Your task to perform on an android device: open app "Google Play Games" (install if not already installed) Image 0: 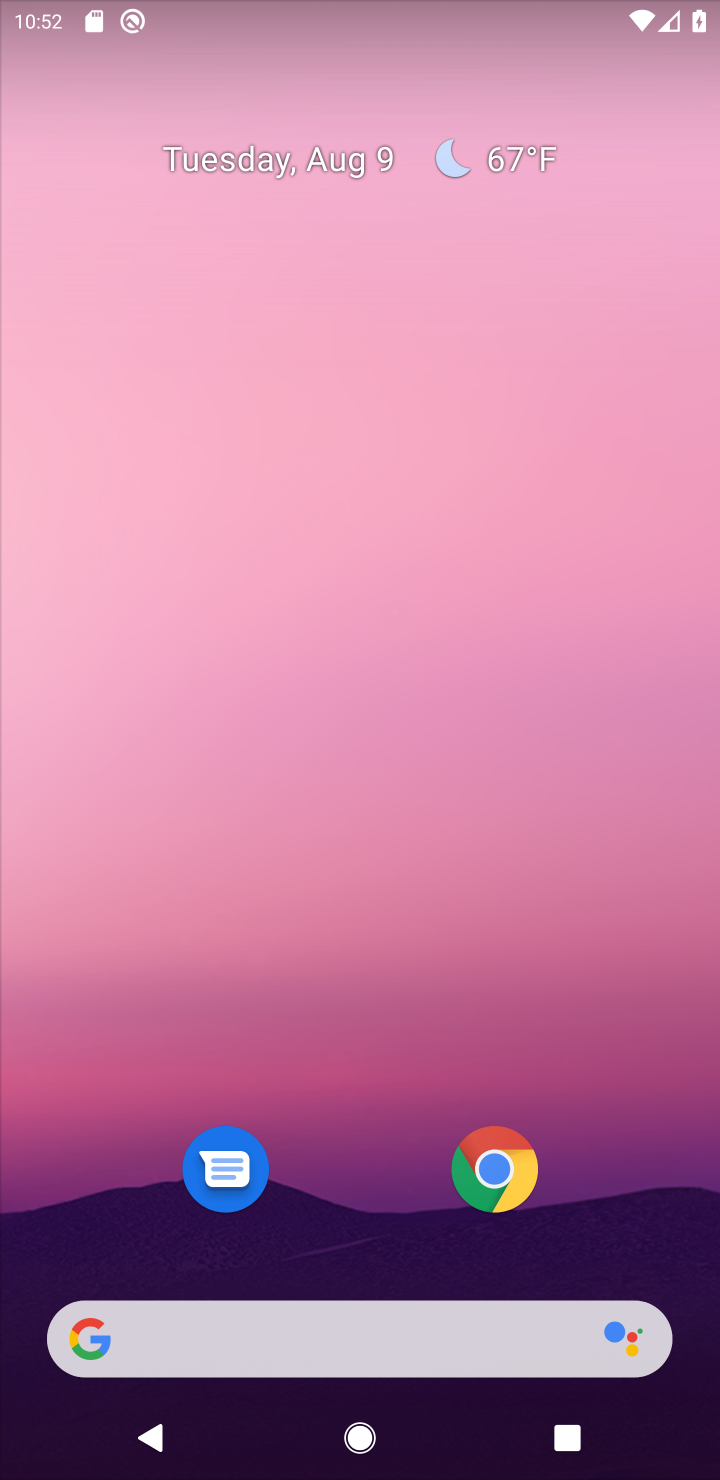
Step 0: drag from (603, 1210) to (630, 90)
Your task to perform on an android device: open app "Google Play Games" (install if not already installed) Image 1: 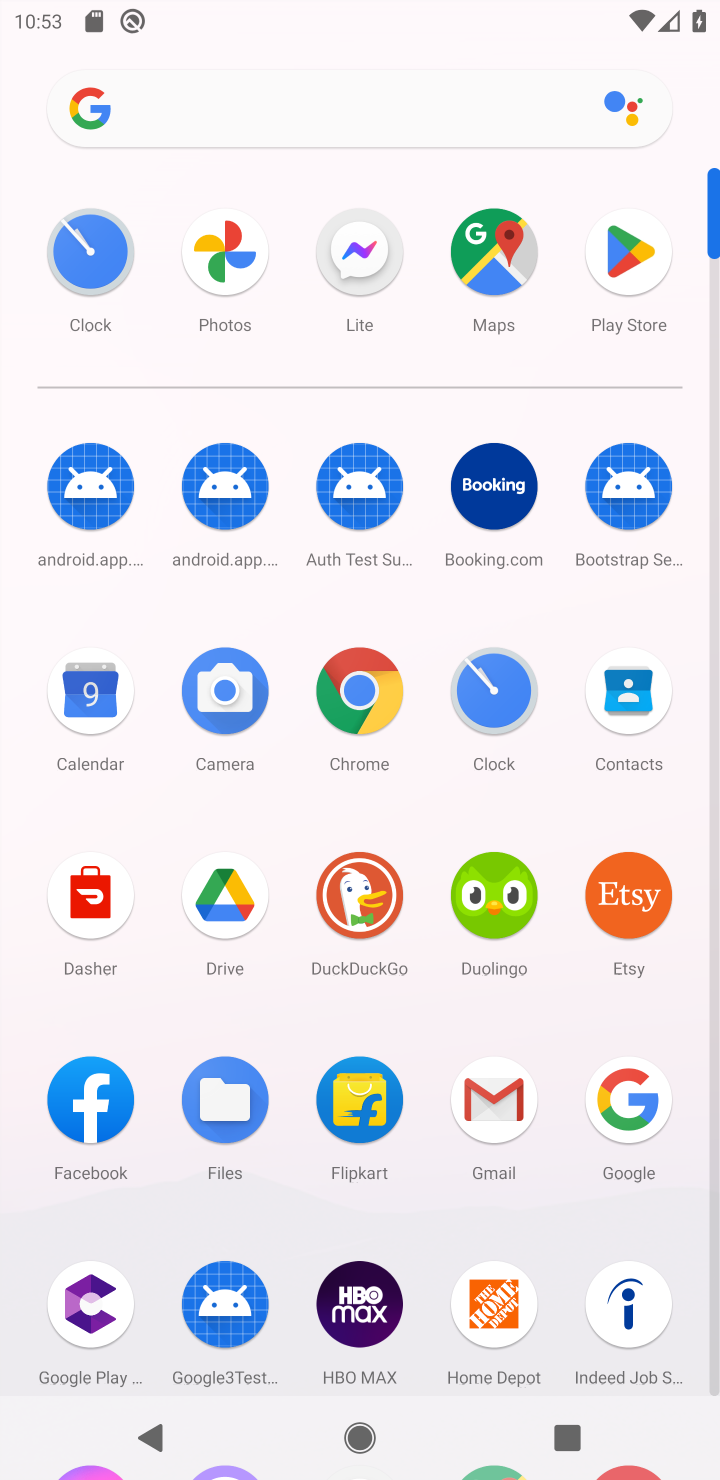
Step 1: click (629, 242)
Your task to perform on an android device: open app "Google Play Games" (install if not already installed) Image 2: 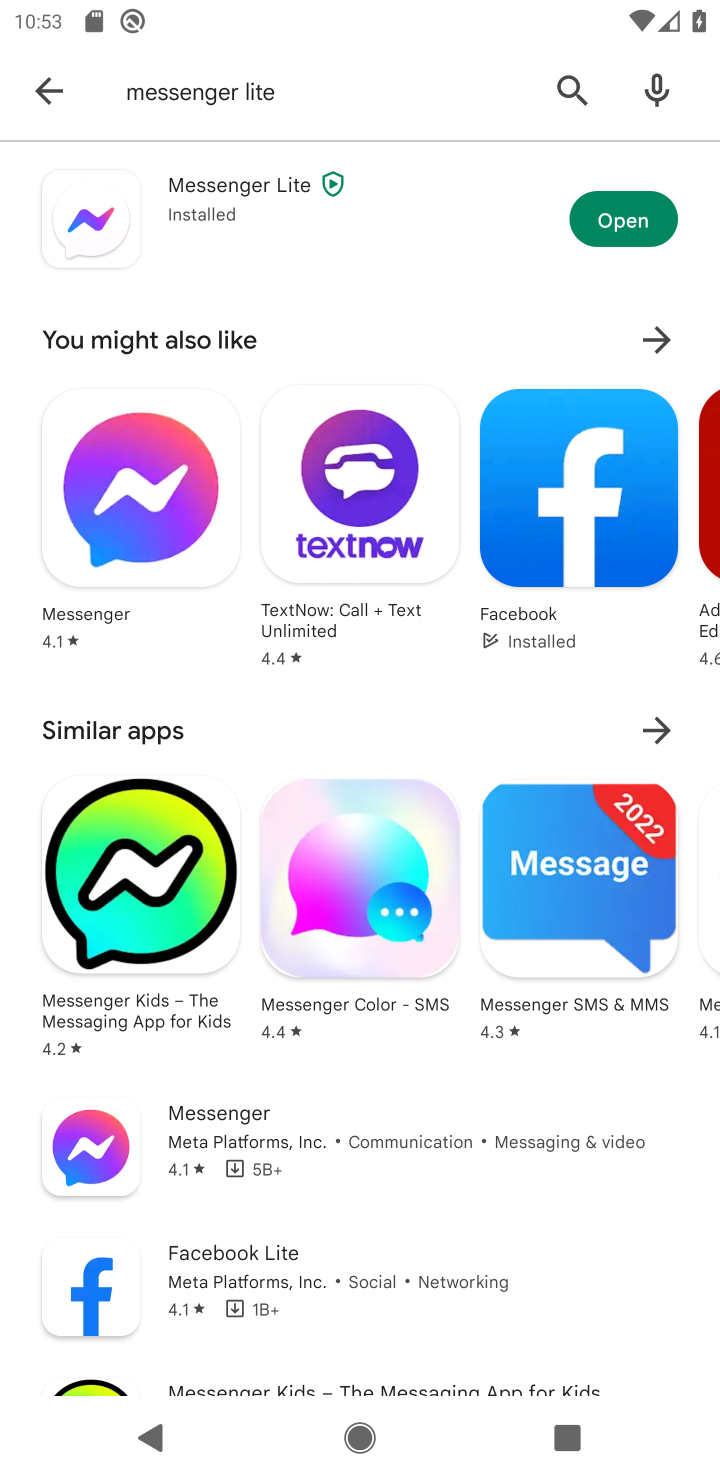
Step 2: click (563, 79)
Your task to perform on an android device: open app "Google Play Games" (install if not already installed) Image 3: 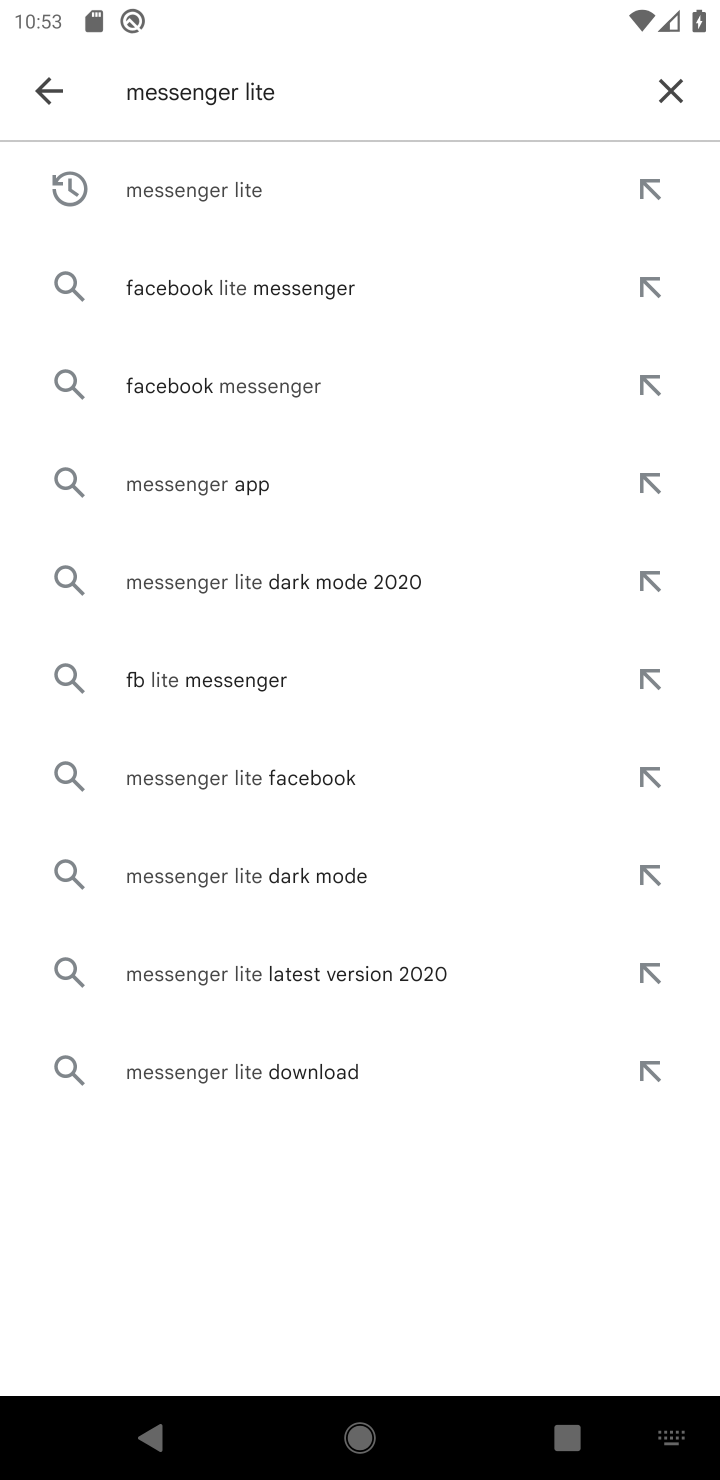
Step 3: click (673, 87)
Your task to perform on an android device: open app "Google Play Games" (install if not already installed) Image 4: 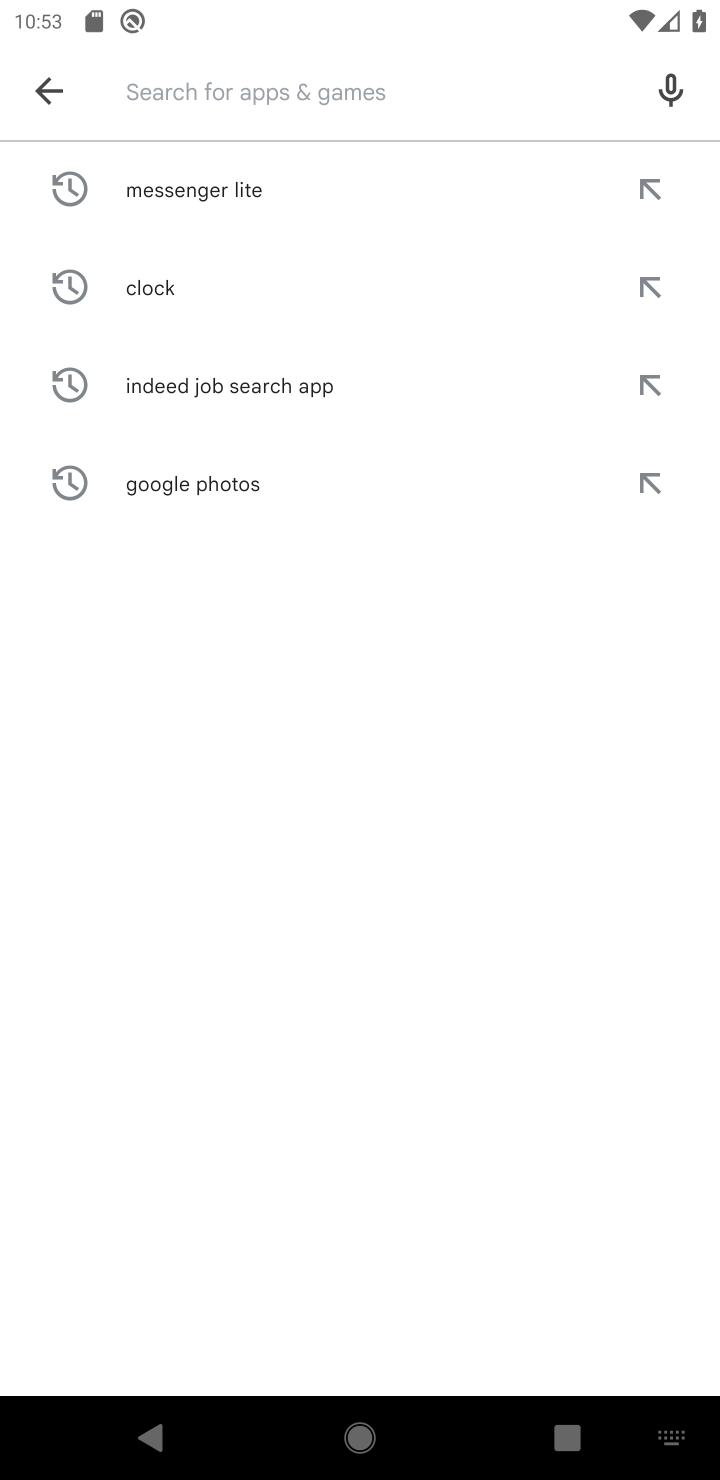
Step 4: press enter
Your task to perform on an android device: open app "Google Play Games" (install if not already installed) Image 5: 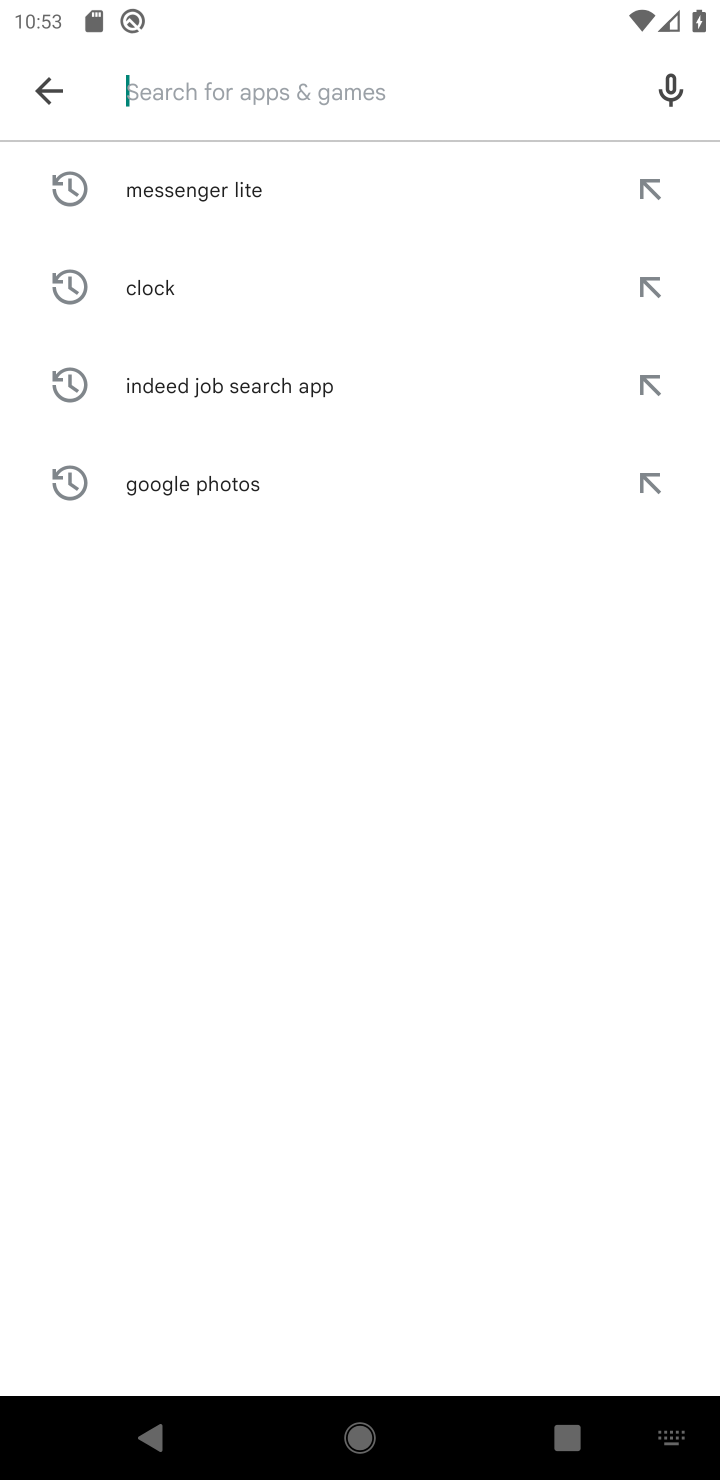
Step 5: type "google play games"
Your task to perform on an android device: open app "Google Play Games" (install if not already installed) Image 6: 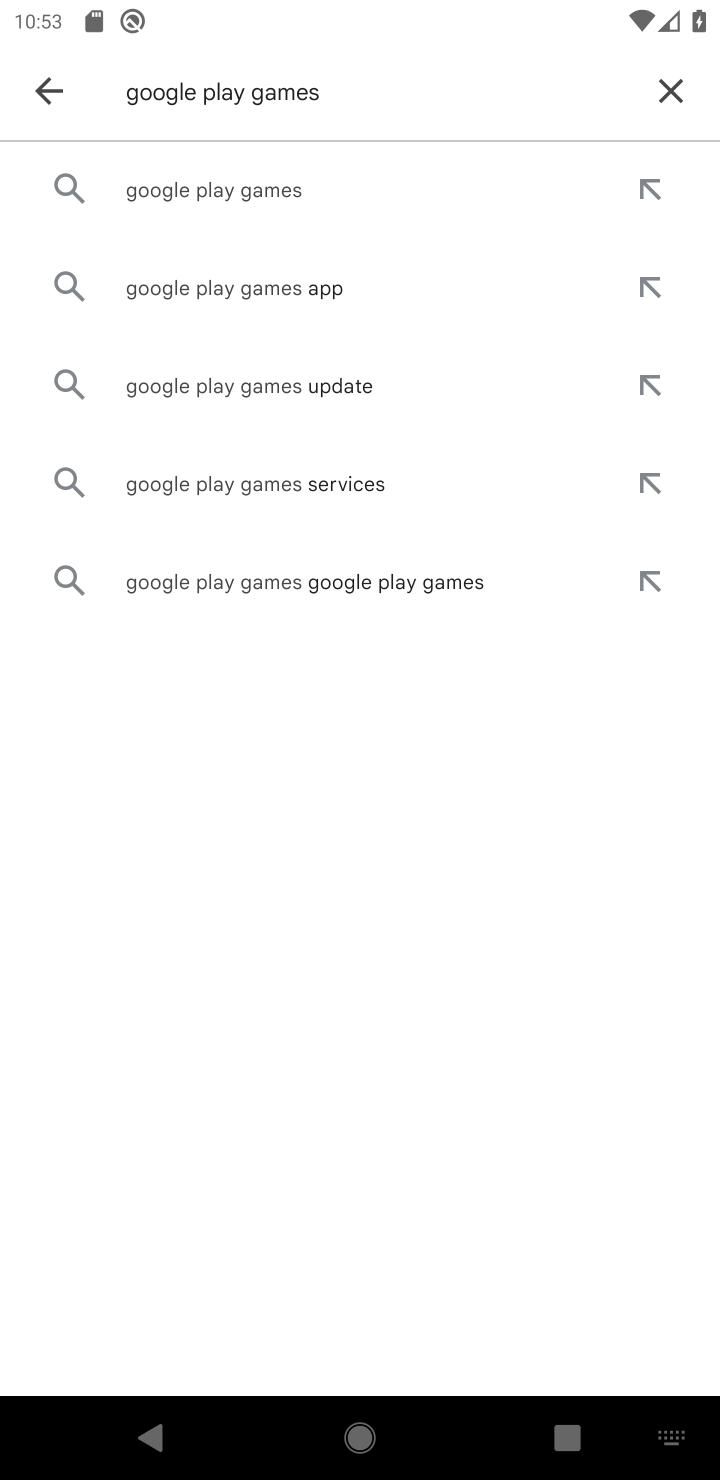
Step 6: click (269, 176)
Your task to perform on an android device: open app "Google Play Games" (install if not already installed) Image 7: 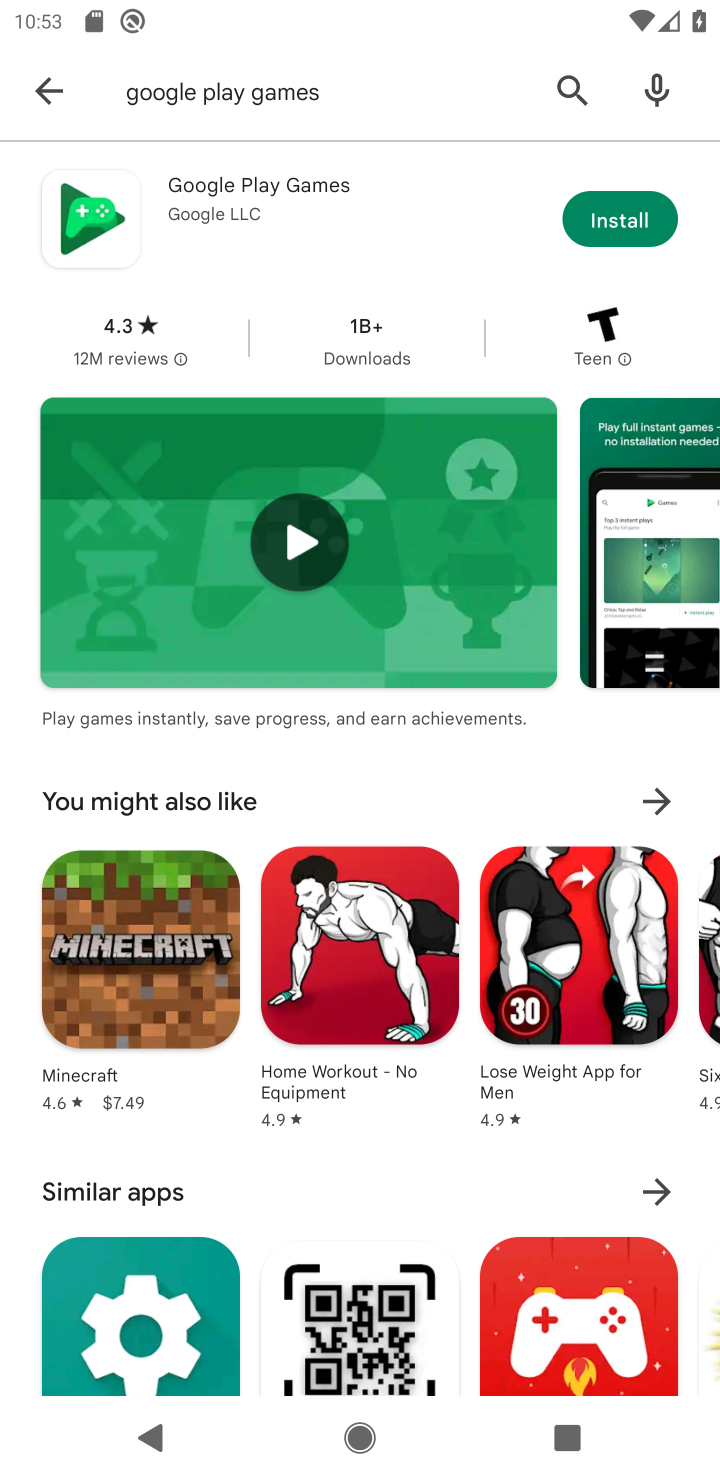
Step 7: click (621, 209)
Your task to perform on an android device: open app "Google Play Games" (install if not already installed) Image 8: 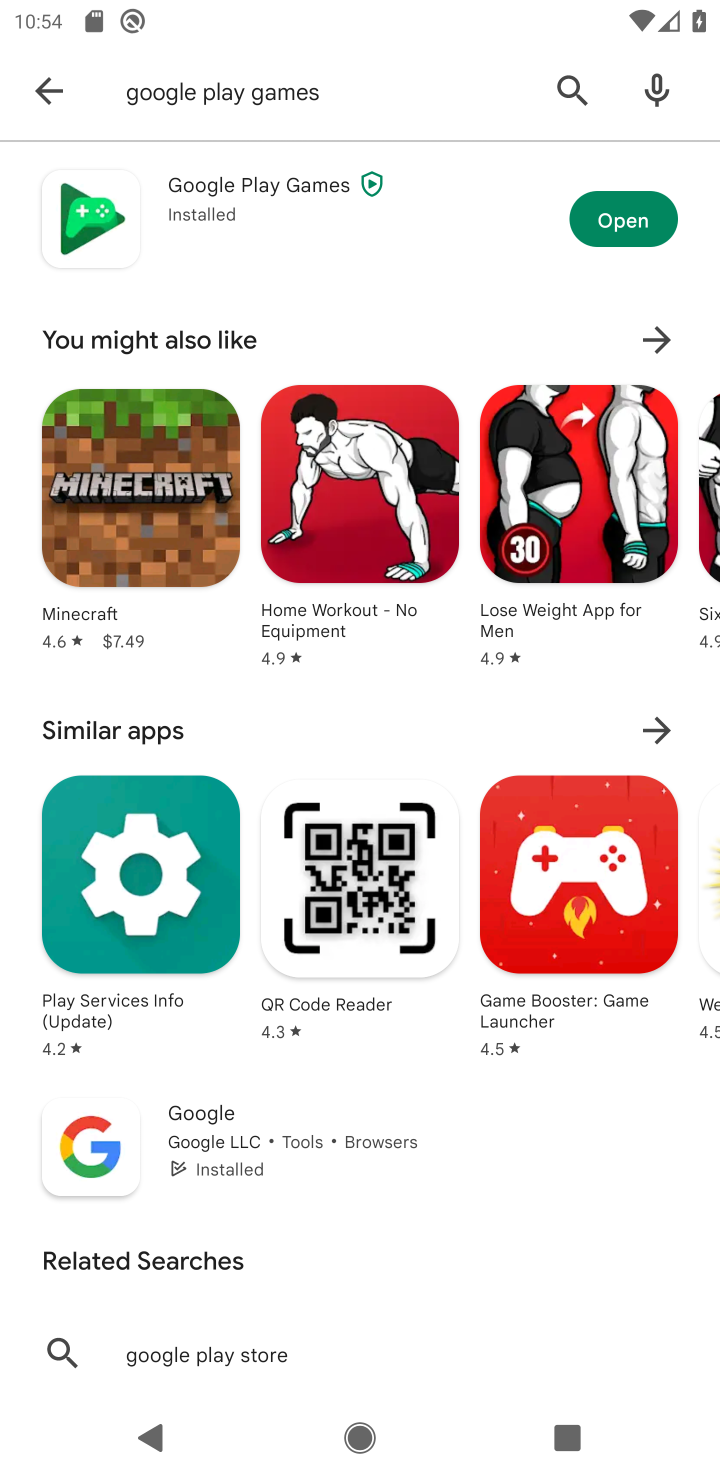
Step 8: click (609, 209)
Your task to perform on an android device: open app "Google Play Games" (install if not already installed) Image 9: 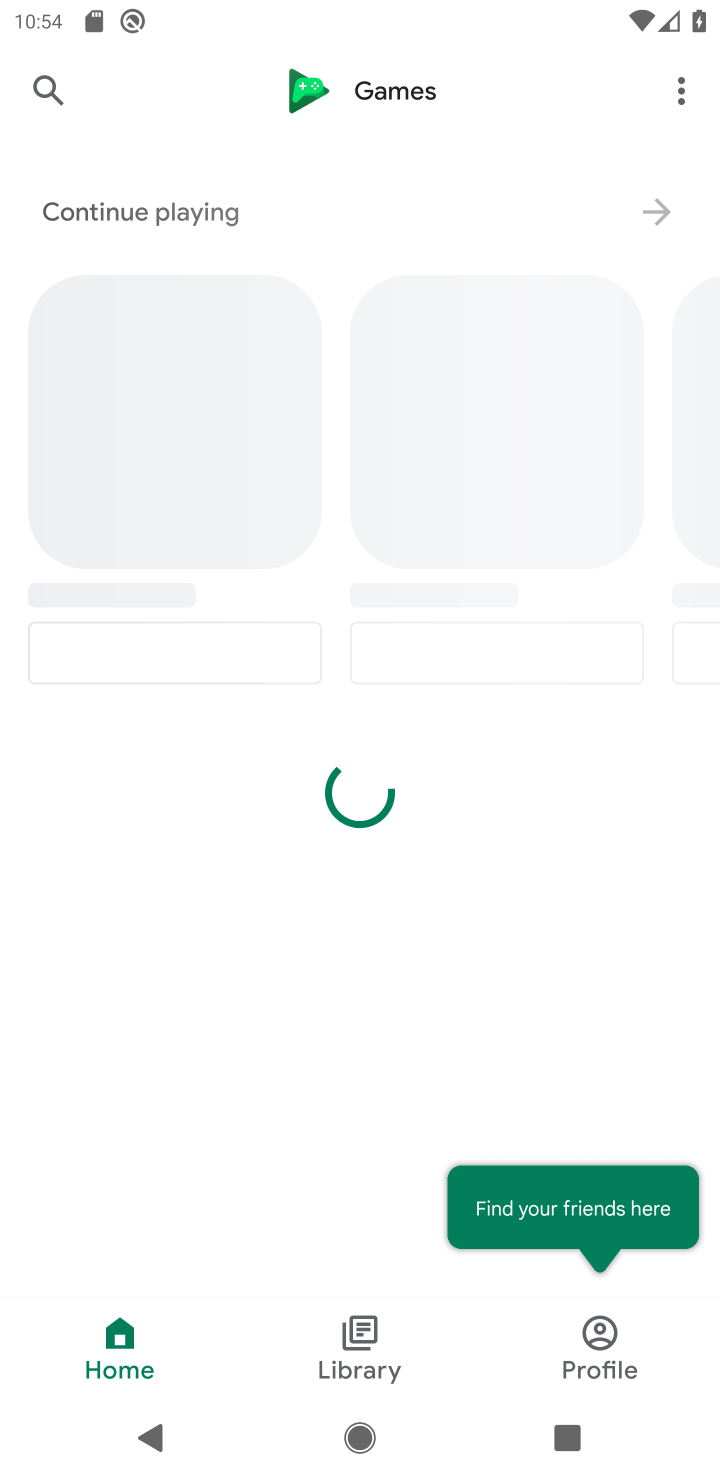
Step 9: task complete